Your task to perform on an android device: Go to notification settings Image 0: 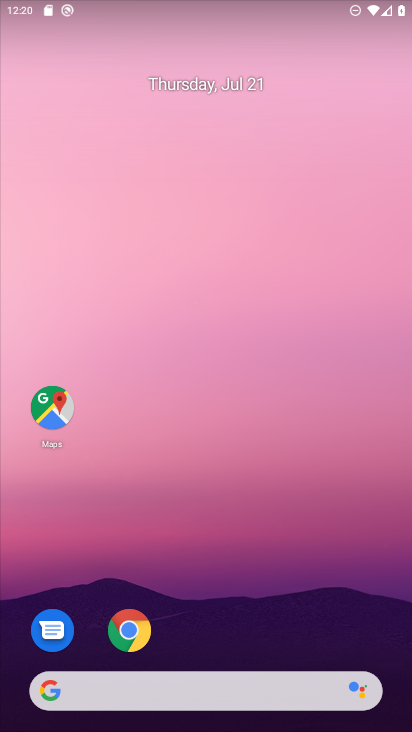
Step 0: drag from (401, 447) to (392, 98)
Your task to perform on an android device: Go to notification settings Image 1: 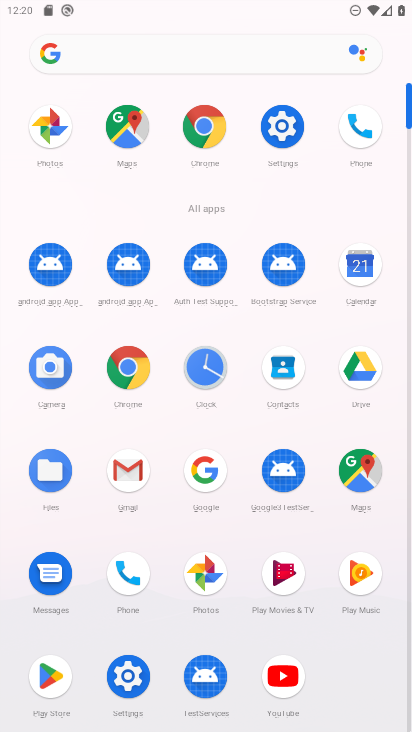
Step 1: click (274, 181)
Your task to perform on an android device: Go to notification settings Image 2: 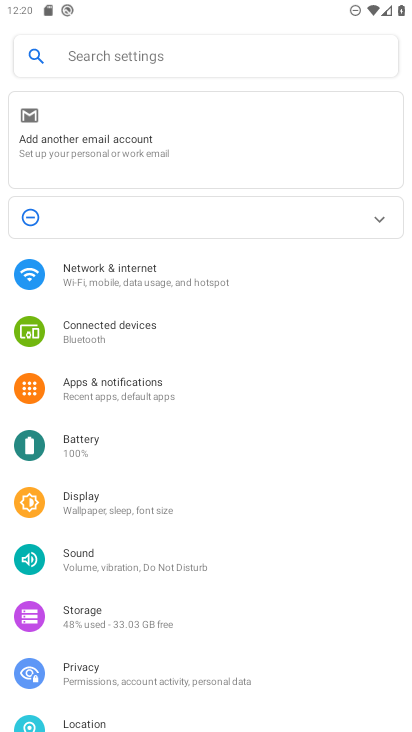
Step 2: click (103, 389)
Your task to perform on an android device: Go to notification settings Image 3: 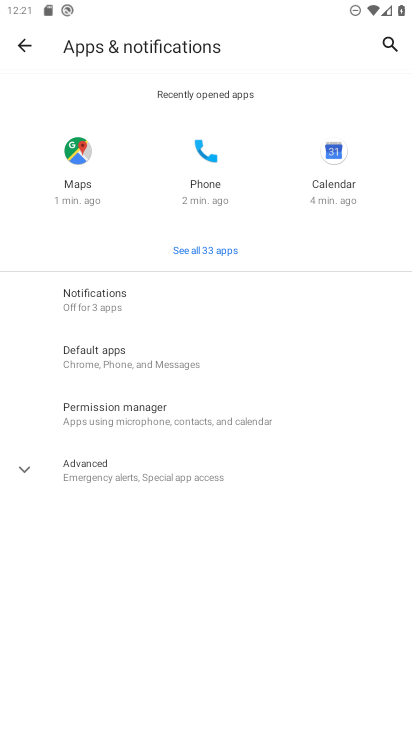
Step 3: click (109, 301)
Your task to perform on an android device: Go to notification settings Image 4: 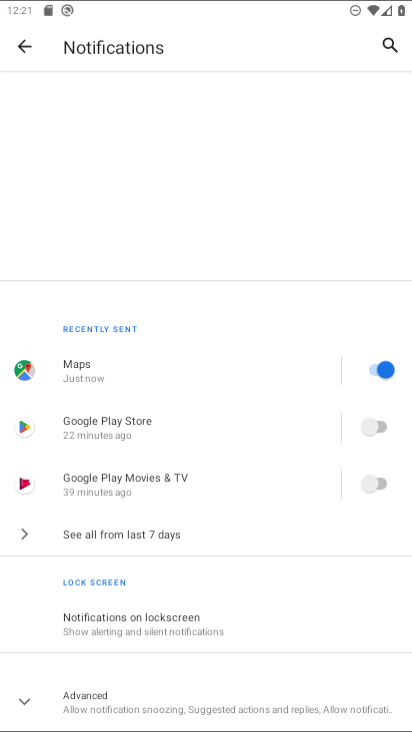
Step 4: task complete